Your task to perform on an android device: toggle notification dots Image 0: 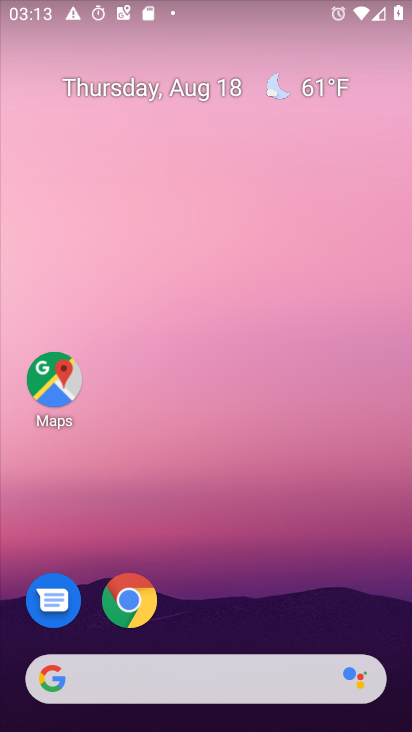
Step 0: press home button
Your task to perform on an android device: toggle notification dots Image 1: 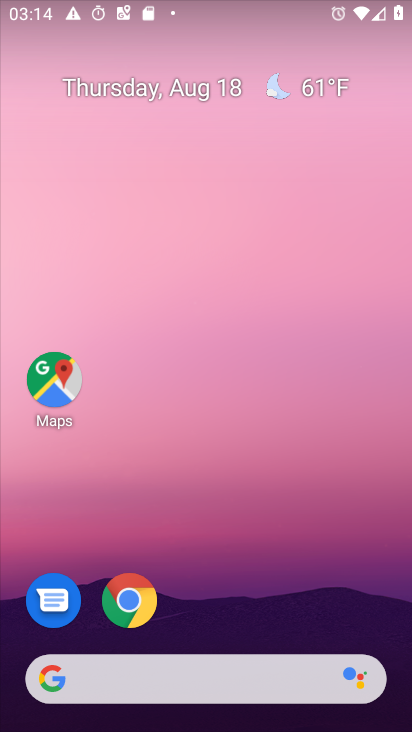
Step 1: drag from (269, 620) to (261, 115)
Your task to perform on an android device: toggle notification dots Image 2: 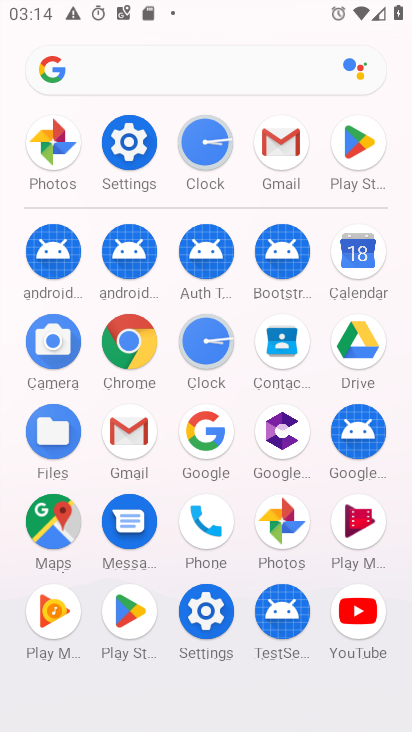
Step 2: click (118, 160)
Your task to perform on an android device: toggle notification dots Image 3: 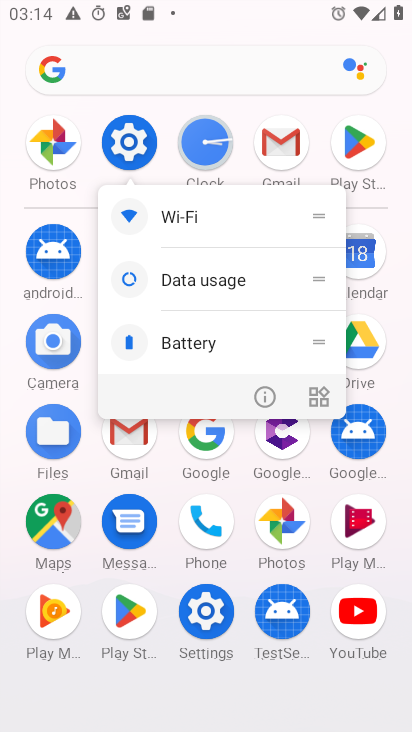
Step 3: click (119, 153)
Your task to perform on an android device: toggle notification dots Image 4: 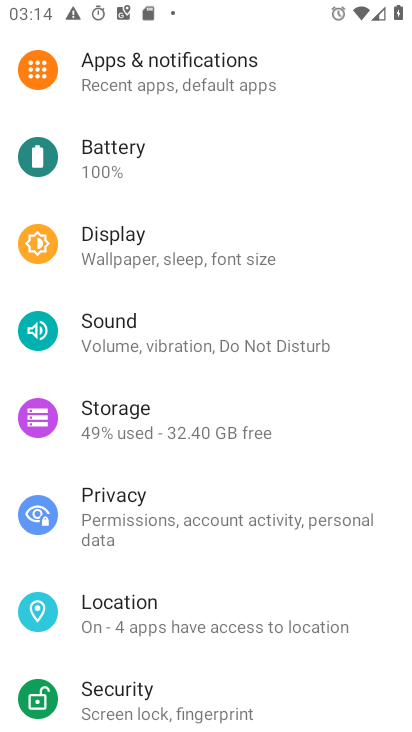
Step 4: click (196, 55)
Your task to perform on an android device: toggle notification dots Image 5: 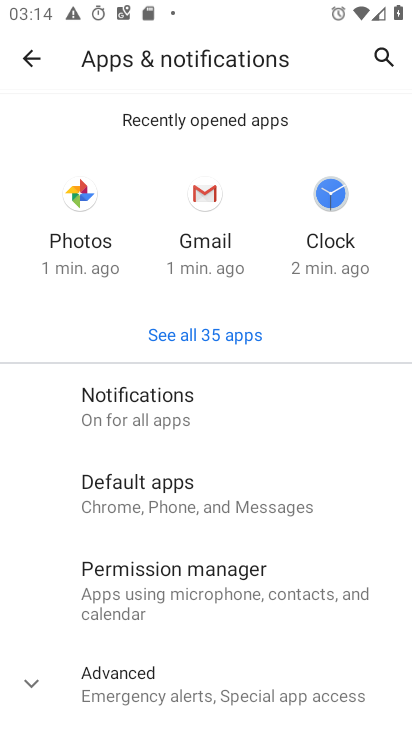
Step 5: drag from (285, 658) to (286, 440)
Your task to perform on an android device: toggle notification dots Image 6: 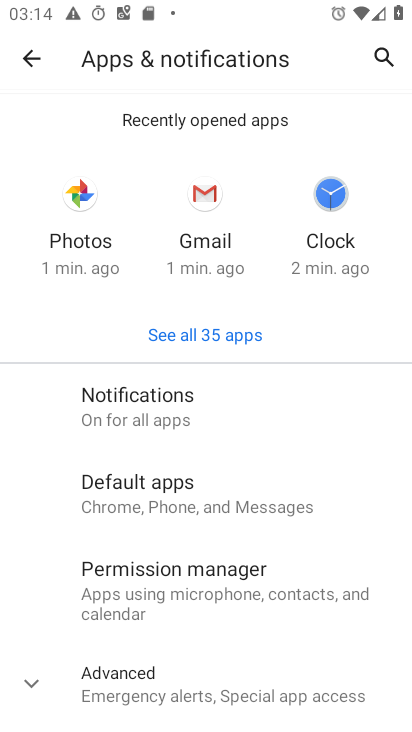
Step 6: click (167, 410)
Your task to perform on an android device: toggle notification dots Image 7: 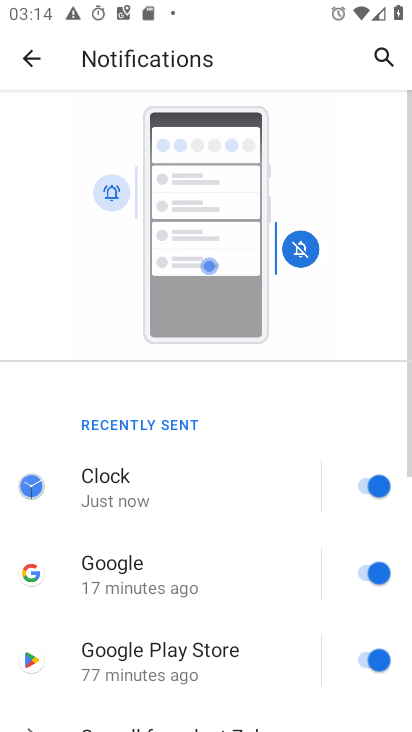
Step 7: drag from (290, 645) to (321, 67)
Your task to perform on an android device: toggle notification dots Image 8: 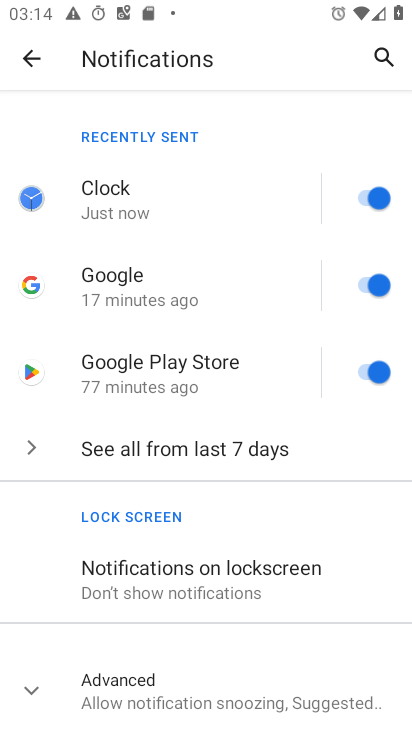
Step 8: click (91, 702)
Your task to perform on an android device: toggle notification dots Image 9: 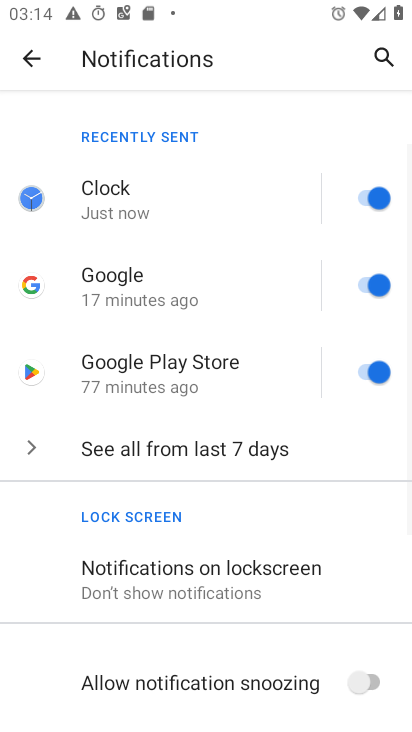
Step 9: drag from (231, 705) to (227, 359)
Your task to perform on an android device: toggle notification dots Image 10: 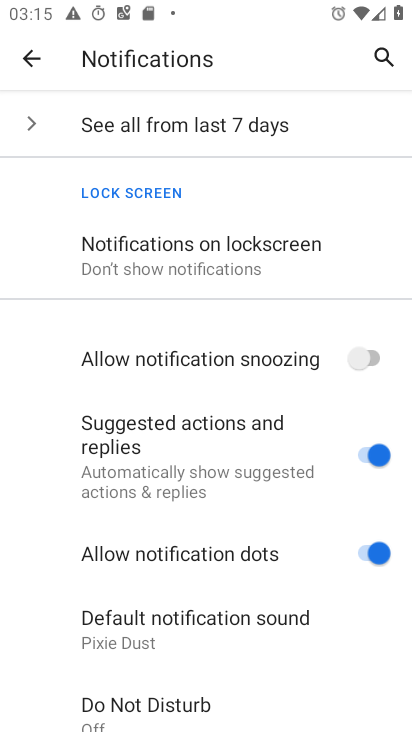
Step 10: click (384, 548)
Your task to perform on an android device: toggle notification dots Image 11: 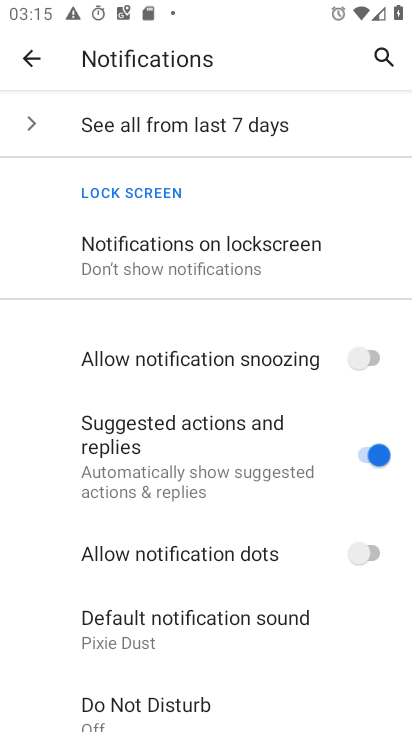
Step 11: task complete